Your task to perform on an android device: add a label to a message in the gmail app Image 0: 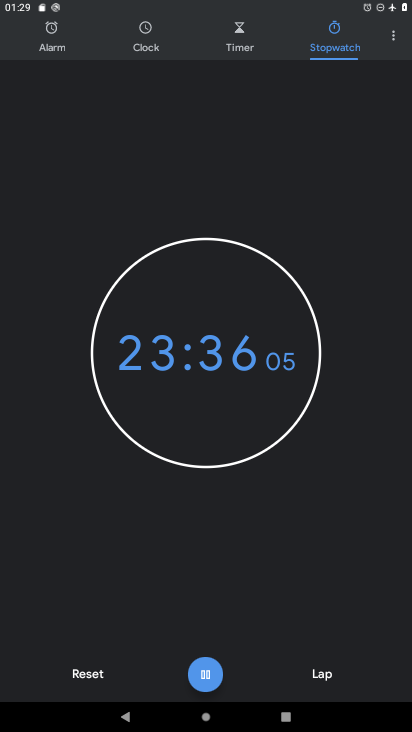
Step 0: press home button
Your task to perform on an android device: add a label to a message in the gmail app Image 1: 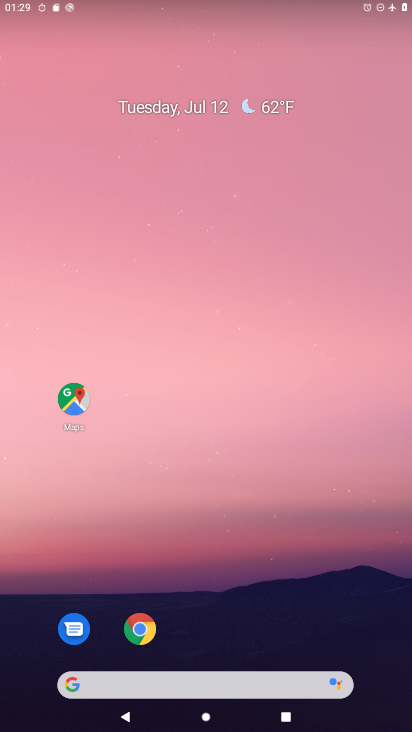
Step 1: drag from (261, 629) to (316, 77)
Your task to perform on an android device: add a label to a message in the gmail app Image 2: 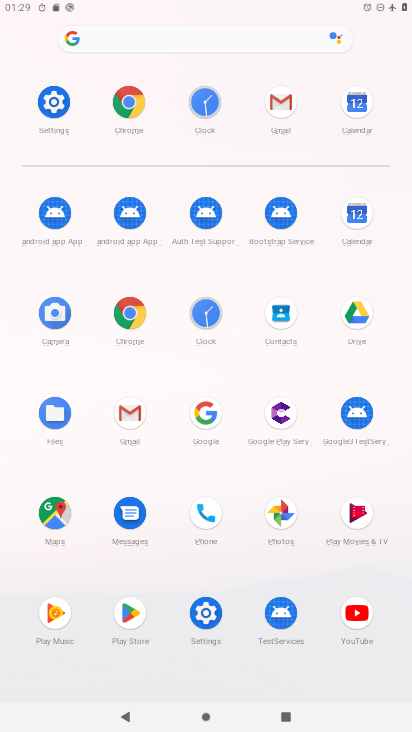
Step 2: click (128, 413)
Your task to perform on an android device: add a label to a message in the gmail app Image 3: 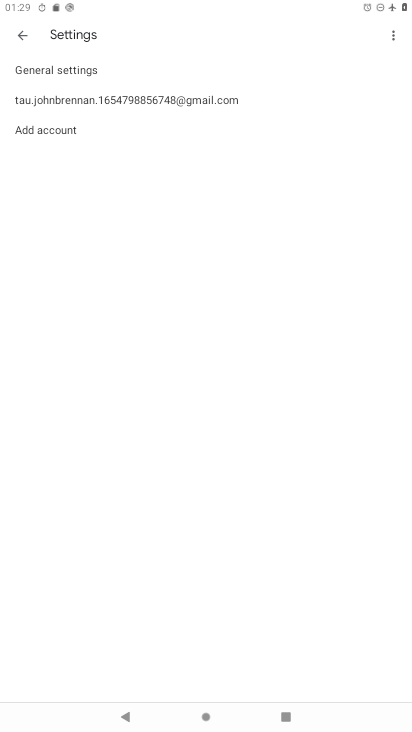
Step 3: click (18, 25)
Your task to perform on an android device: add a label to a message in the gmail app Image 4: 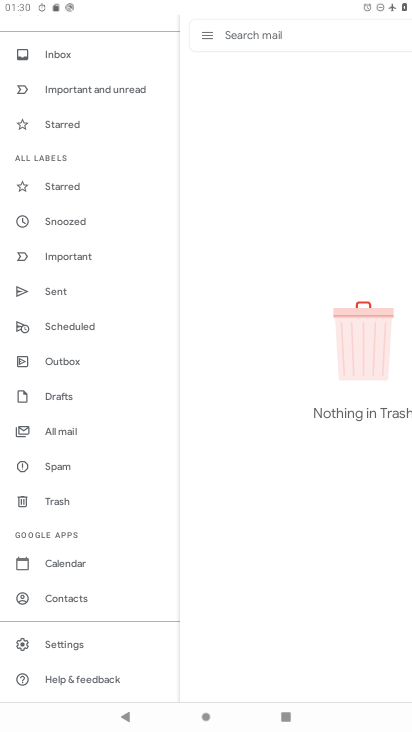
Step 4: click (62, 48)
Your task to perform on an android device: add a label to a message in the gmail app Image 5: 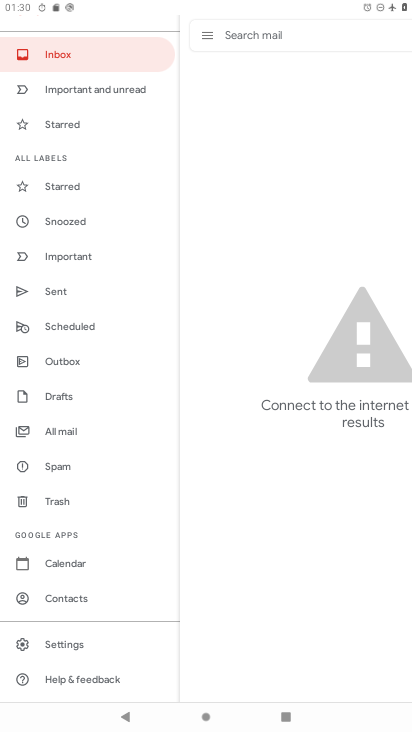
Step 5: task complete